Your task to perform on an android device: Go to accessibility settings Image 0: 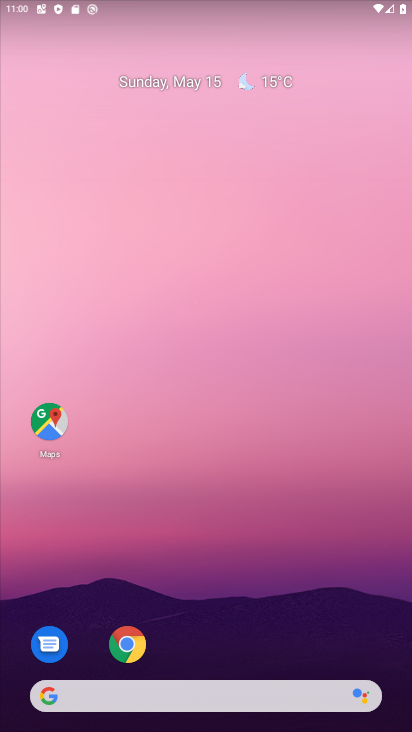
Step 0: drag from (241, 642) to (218, 187)
Your task to perform on an android device: Go to accessibility settings Image 1: 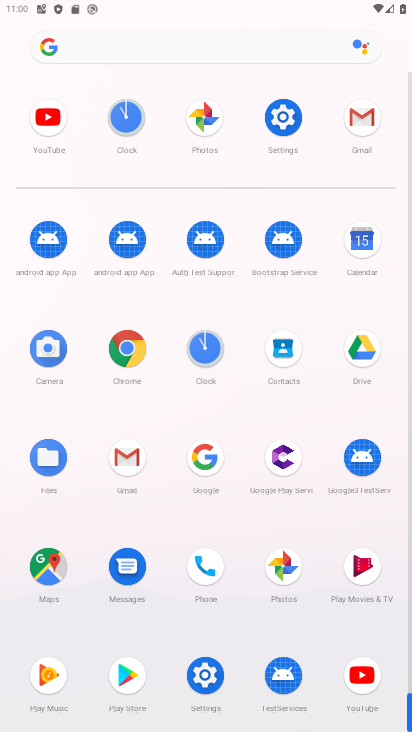
Step 1: click (208, 670)
Your task to perform on an android device: Go to accessibility settings Image 2: 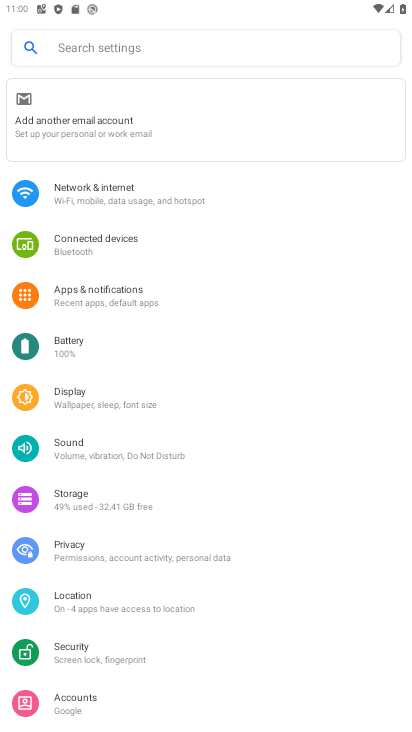
Step 2: drag from (121, 660) to (121, 495)
Your task to perform on an android device: Go to accessibility settings Image 3: 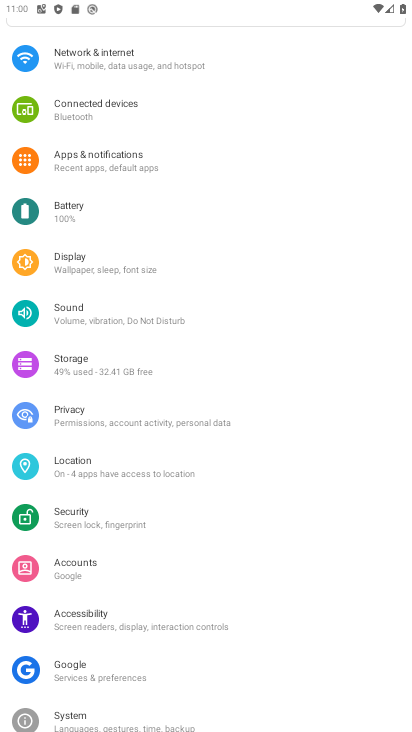
Step 3: click (90, 641)
Your task to perform on an android device: Go to accessibility settings Image 4: 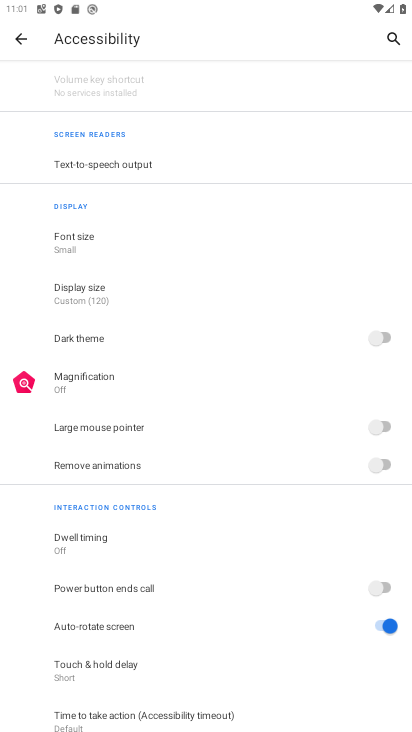
Step 4: task complete